Your task to perform on an android device: open the mobile data screen to see how much data has been used Image 0: 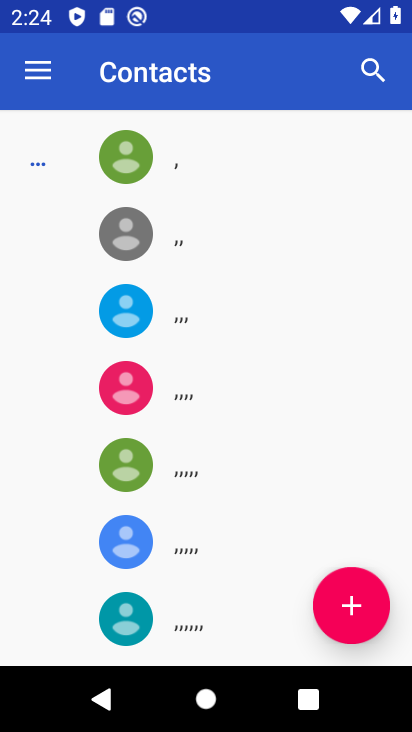
Step 0: drag from (306, 299) to (212, 581)
Your task to perform on an android device: open the mobile data screen to see how much data has been used Image 1: 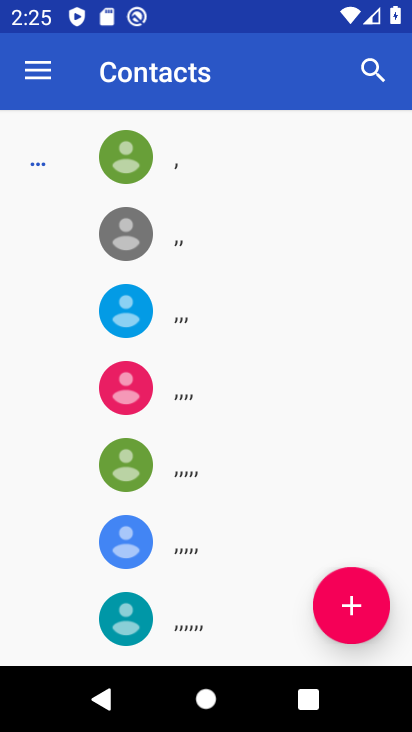
Step 1: drag from (331, 9) to (224, 315)
Your task to perform on an android device: open the mobile data screen to see how much data has been used Image 2: 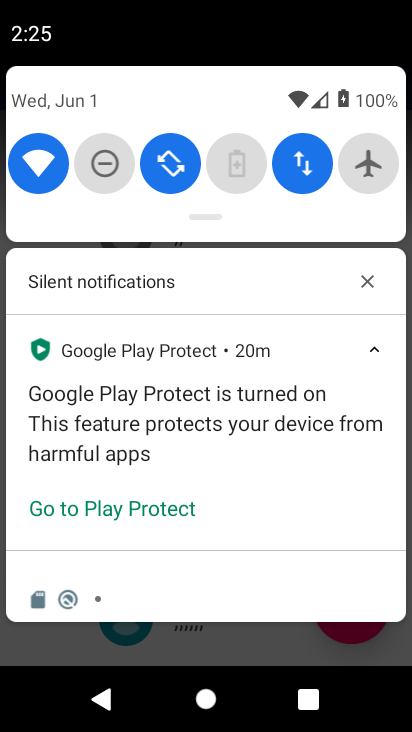
Step 2: click (302, 152)
Your task to perform on an android device: open the mobile data screen to see how much data has been used Image 3: 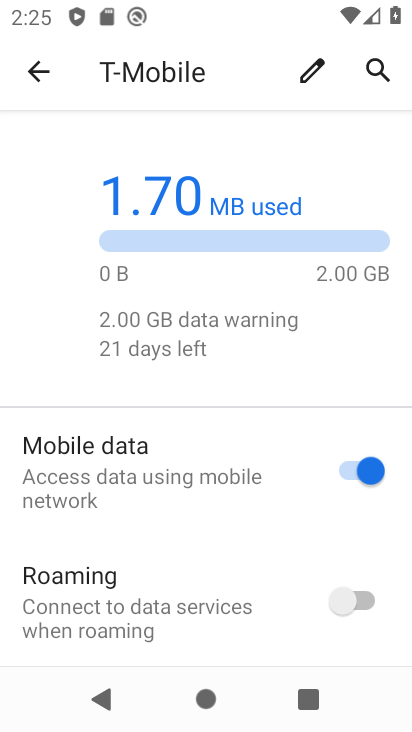
Step 3: task complete